Your task to perform on an android device: change the clock display to show seconds Image 0: 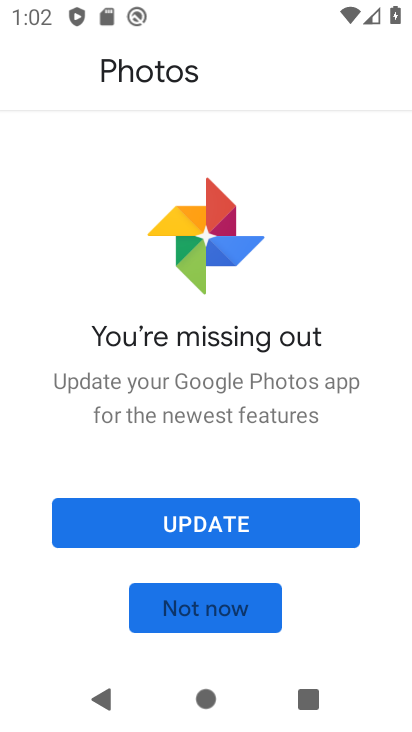
Step 0: click (216, 701)
Your task to perform on an android device: change the clock display to show seconds Image 1: 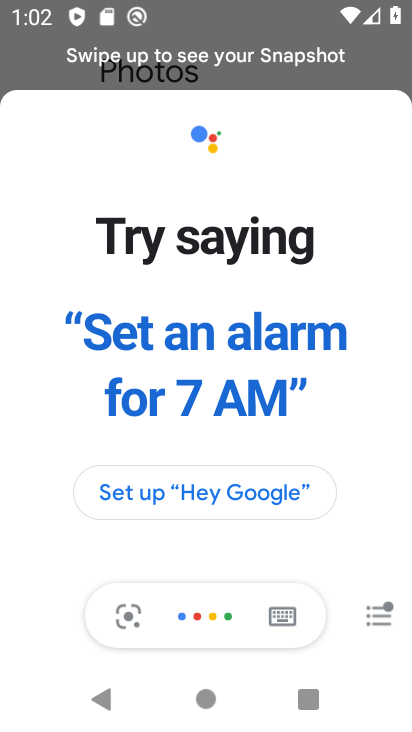
Step 1: press home button
Your task to perform on an android device: change the clock display to show seconds Image 2: 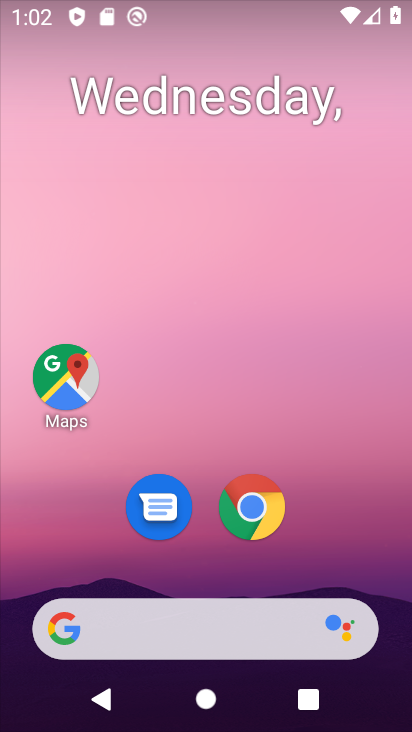
Step 2: drag from (305, 491) to (253, 143)
Your task to perform on an android device: change the clock display to show seconds Image 3: 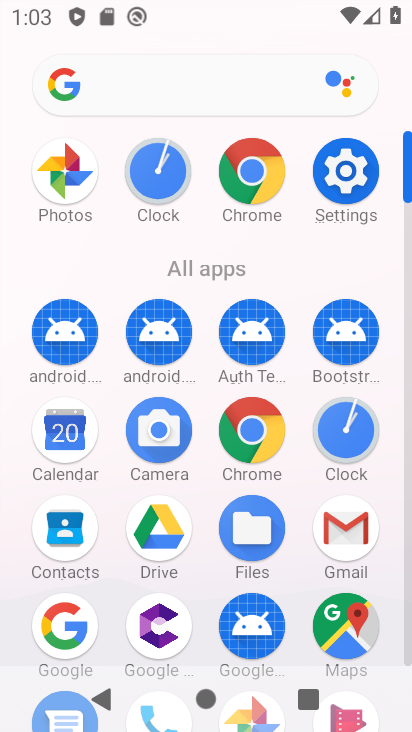
Step 3: click (134, 169)
Your task to perform on an android device: change the clock display to show seconds Image 4: 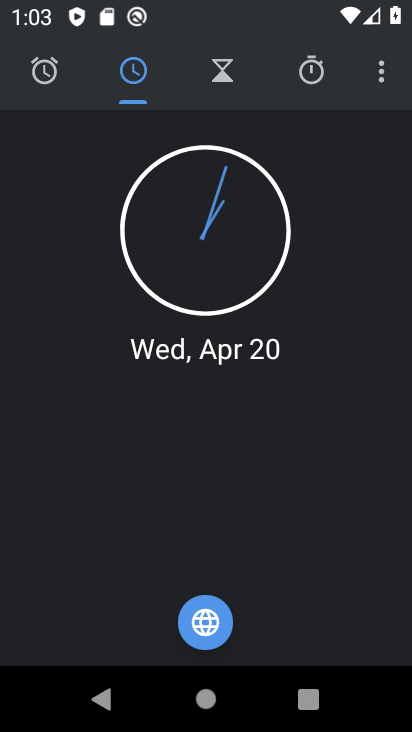
Step 4: click (391, 75)
Your task to perform on an android device: change the clock display to show seconds Image 5: 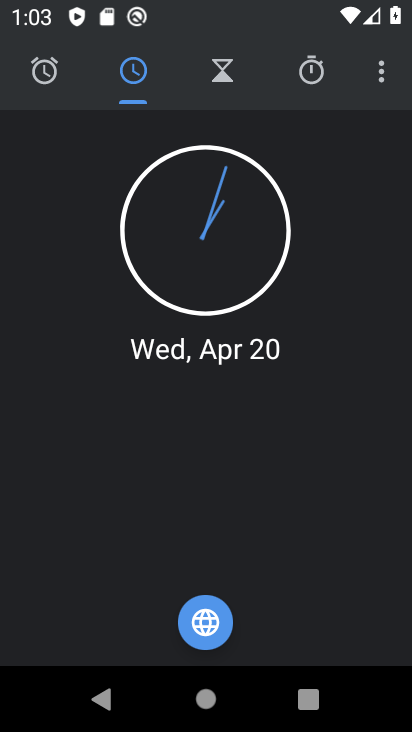
Step 5: click (391, 67)
Your task to perform on an android device: change the clock display to show seconds Image 6: 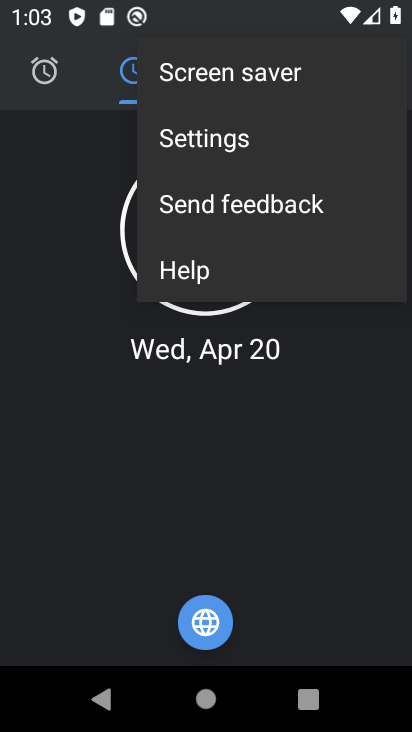
Step 6: click (256, 140)
Your task to perform on an android device: change the clock display to show seconds Image 7: 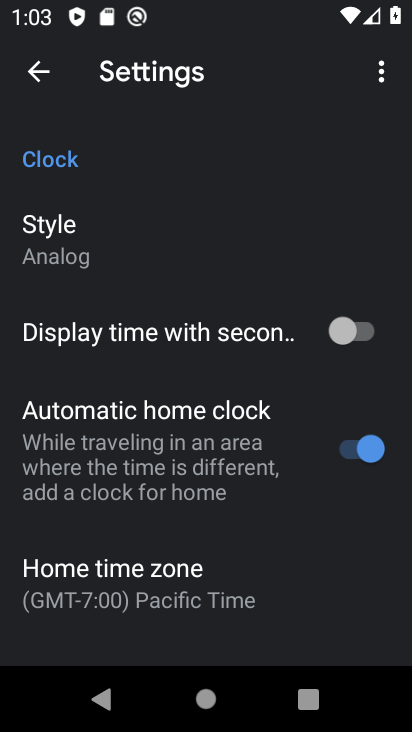
Step 7: click (301, 334)
Your task to perform on an android device: change the clock display to show seconds Image 8: 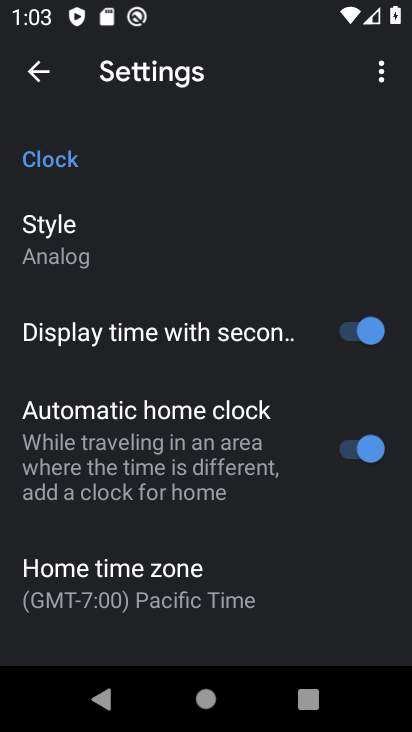
Step 8: task complete